Your task to perform on an android device: turn notification dots on Image 0: 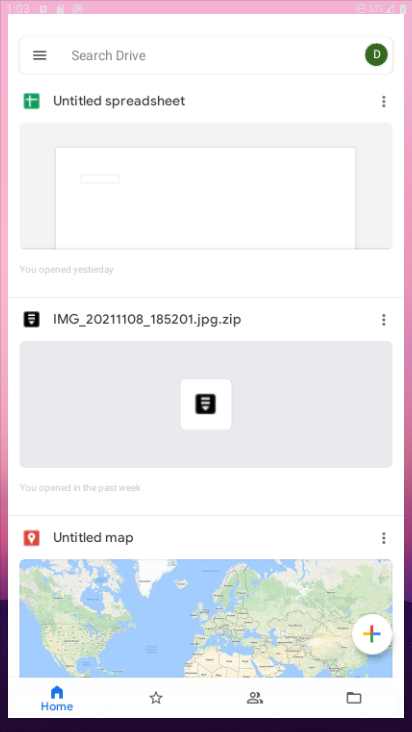
Step 0: drag from (322, 622) to (240, 95)
Your task to perform on an android device: turn notification dots on Image 1: 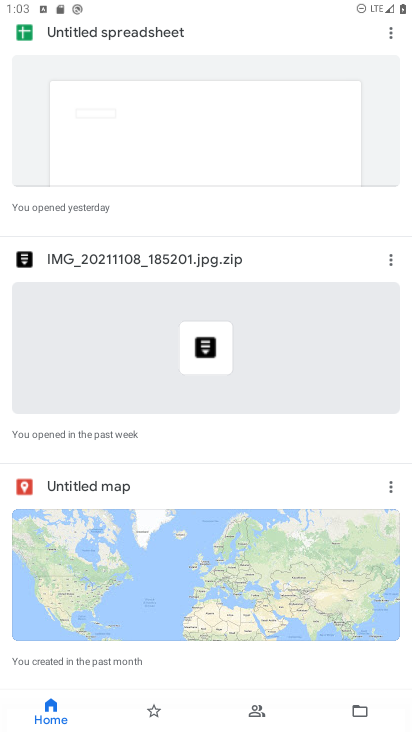
Step 1: press home button
Your task to perform on an android device: turn notification dots on Image 2: 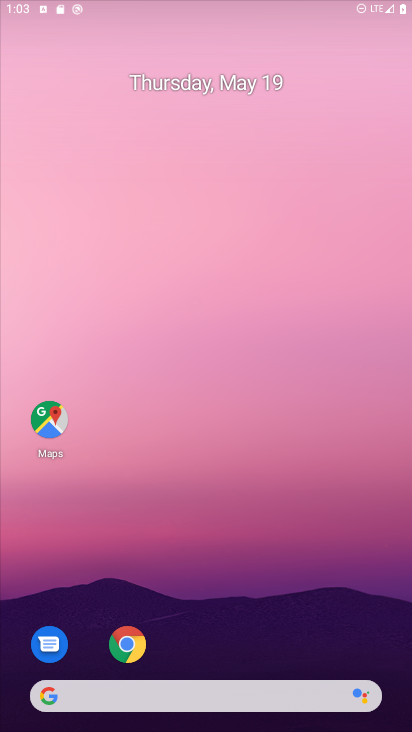
Step 2: drag from (367, 649) to (201, 88)
Your task to perform on an android device: turn notification dots on Image 3: 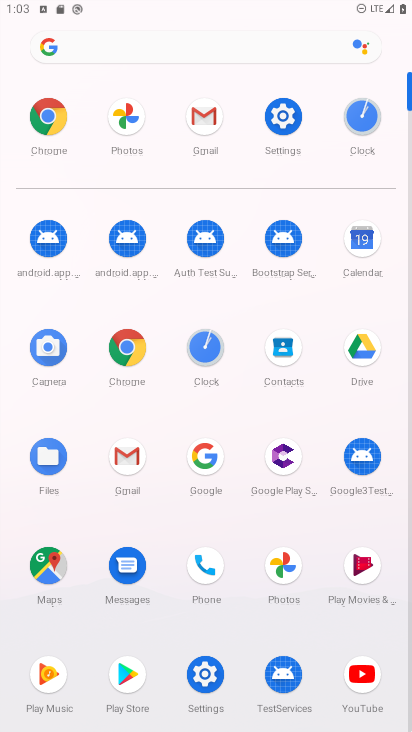
Step 3: click (280, 126)
Your task to perform on an android device: turn notification dots on Image 4: 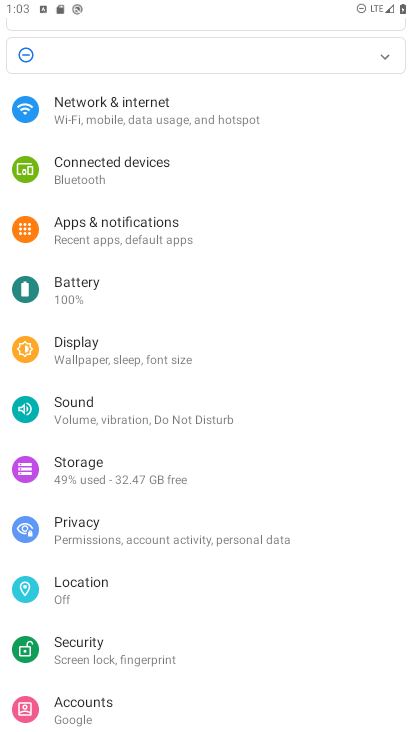
Step 4: click (170, 234)
Your task to perform on an android device: turn notification dots on Image 5: 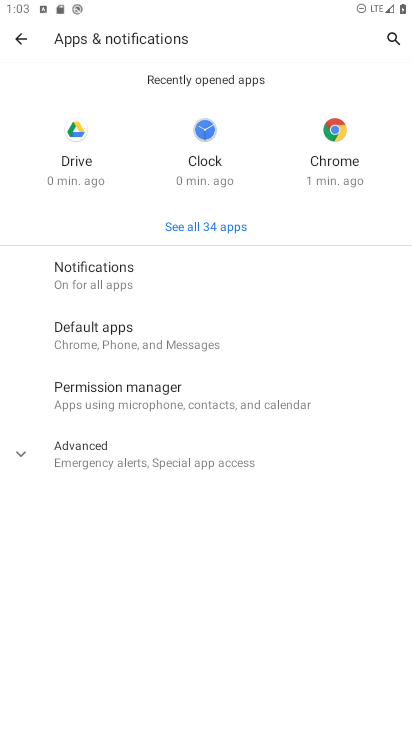
Step 5: click (153, 269)
Your task to perform on an android device: turn notification dots on Image 6: 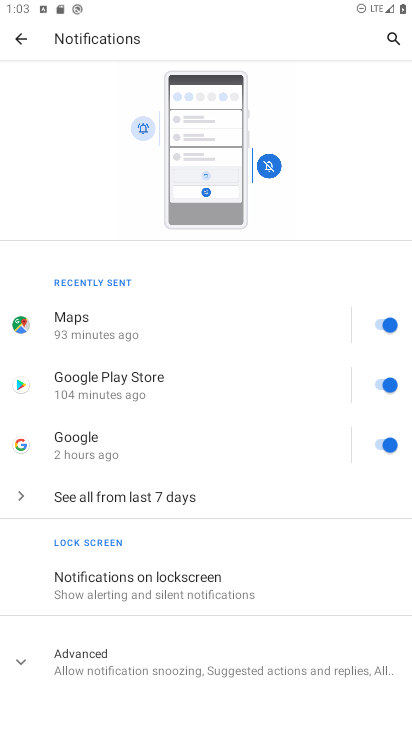
Step 6: drag from (218, 649) to (218, 352)
Your task to perform on an android device: turn notification dots on Image 7: 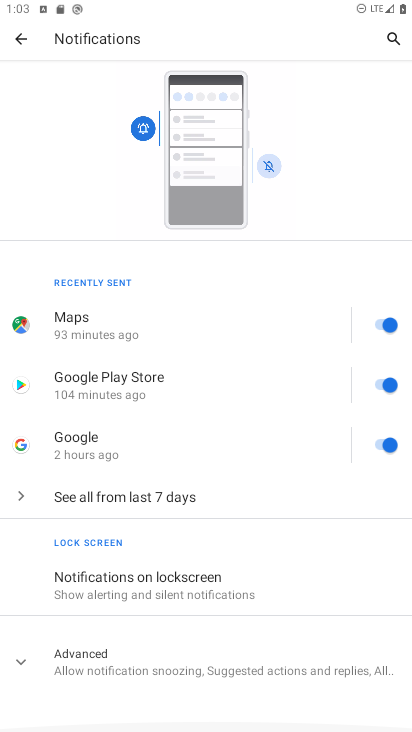
Step 7: click (59, 646)
Your task to perform on an android device: turn notification dots on Image 8: 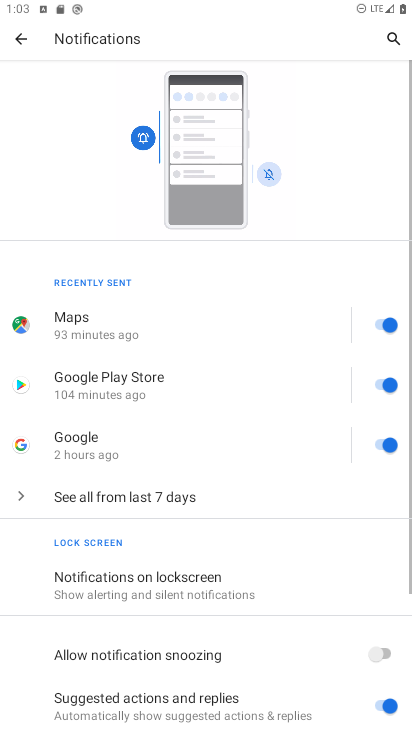
Step 8: drag from (88, 671) to (239, 268)
Your task to perform on an android device: turn notification dots on Image 9: 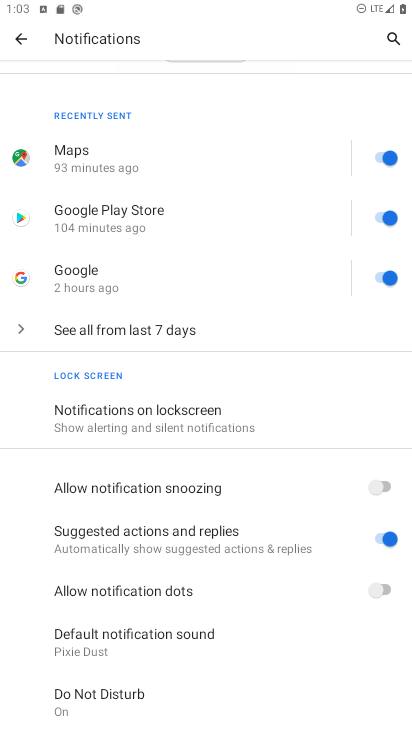
Step 9: click (194, 589)
Your task to perform on an android device: turn notification dots on Image 10: 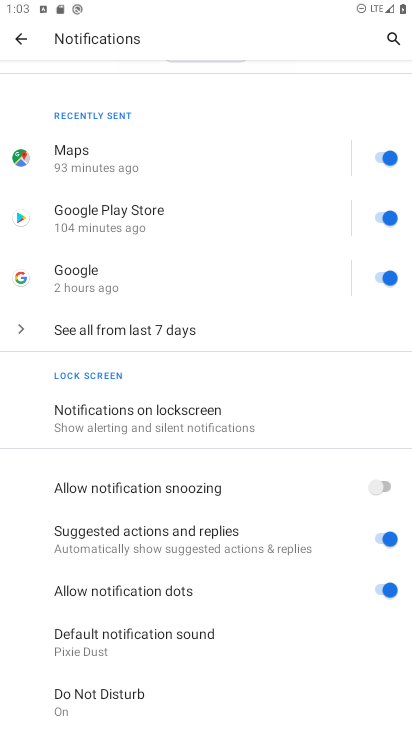
Step 10: task complete